Your task to perform on an android device: delete the emails in spam in the gmail app Image 0: 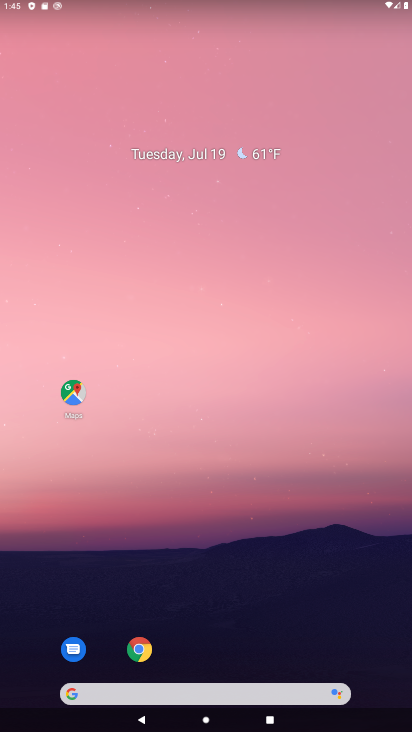
Step 0: drag from (336, 581) to (301, 60)
Your task to perform on an android device: delete the emails in spam in the gmail app Image 1: 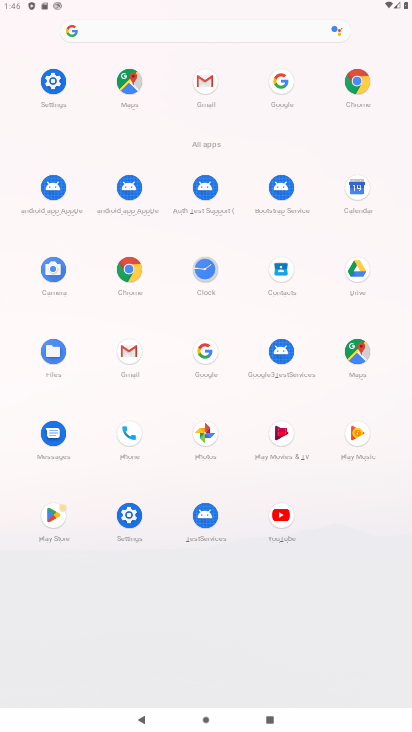
Step 1: click (216, 85)
Your task to perform on an android device: delete the emails in spam in the gmail app Image 2: 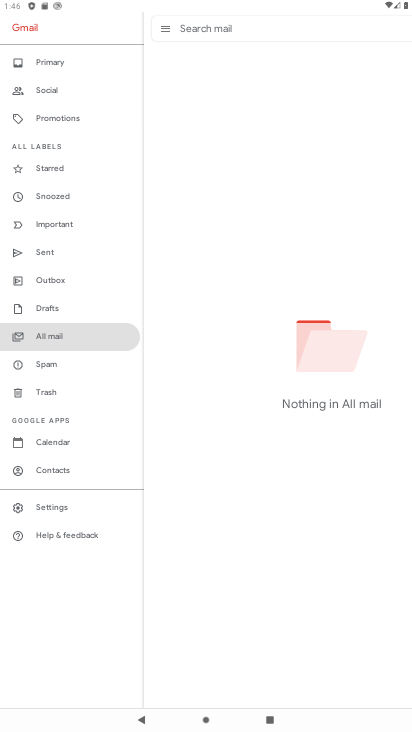
Step 2: click (60, 367)
Your task to perform on an android device: delete the emails in spam in the gmail app Image 3: 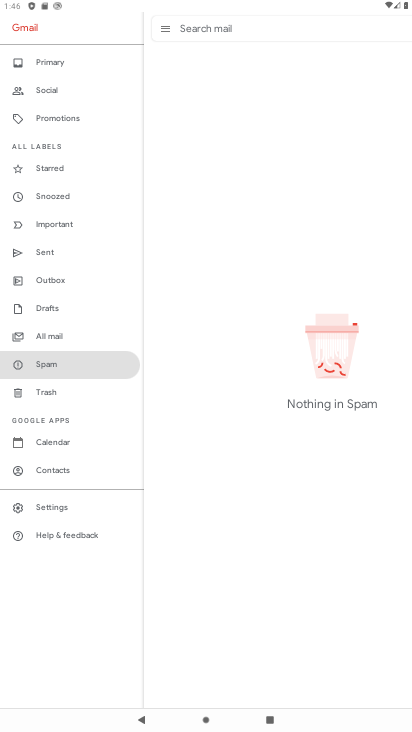
Step 3: task complete